Your task to perform on an android device: open app "Upside-Cash back on gas & food" (install if not already installed) and go to login screen Image 0: 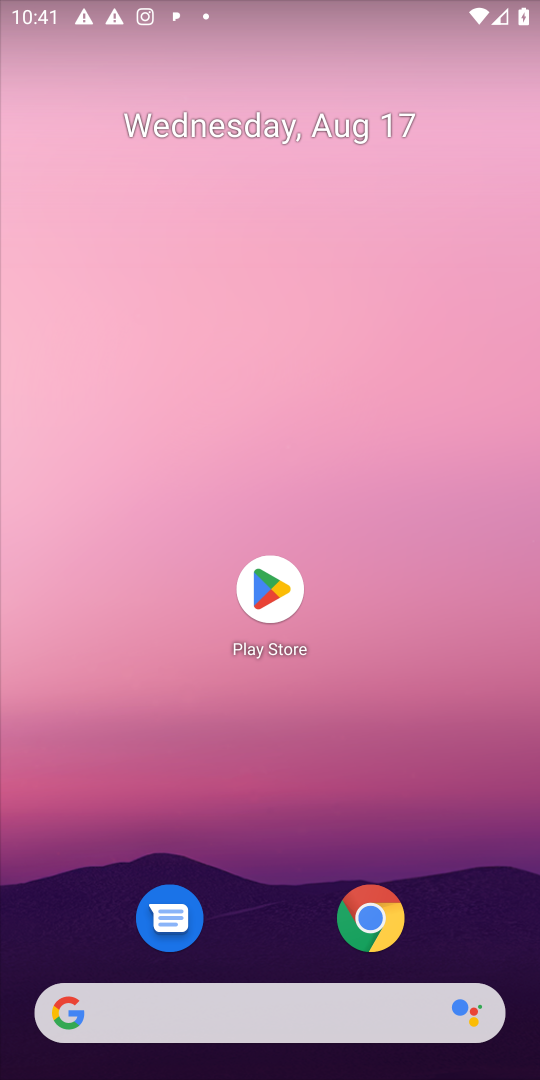
Step 0: press home button
Your task to perform on an android device: open app "Upside-Cash back on gas & food" (install if not already installed) and go to login screen Image 1: 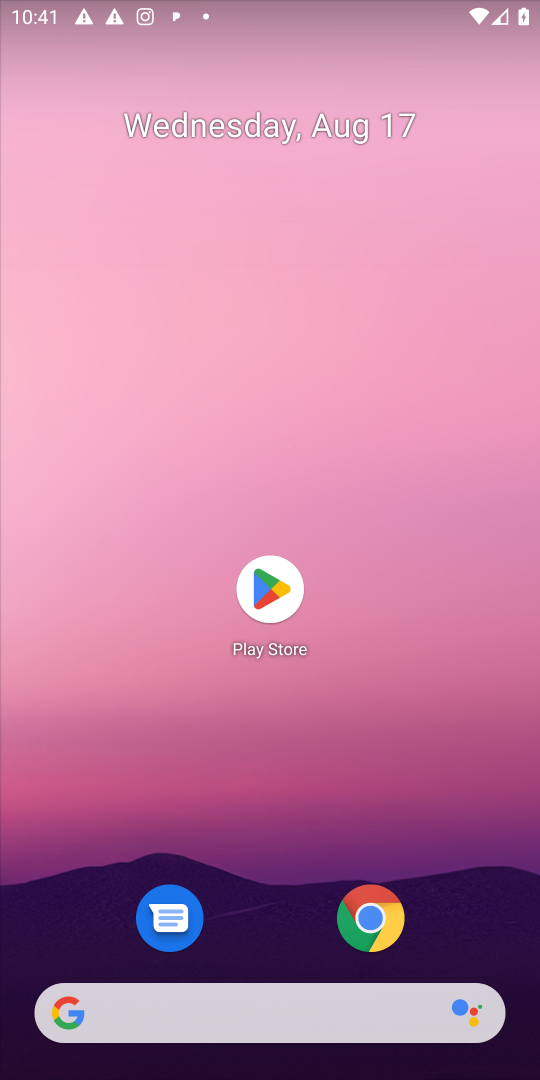
Step 1: click (265, 587)
Your task to perform on an android device: open app "Upside-Cash back on gas & food" (install if not already installed) and go to login screen Image 2: 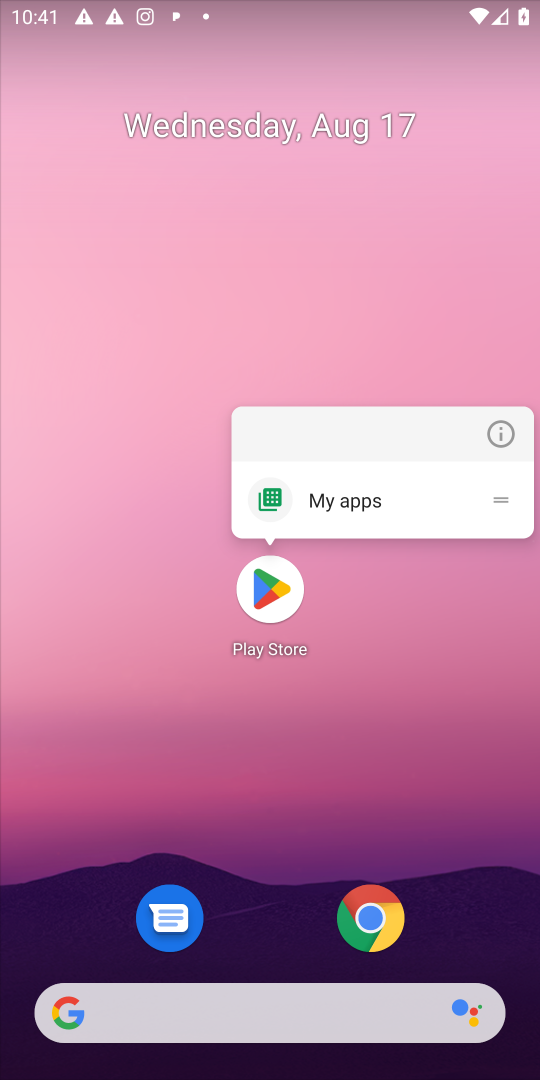
Step 2: click (264, 608)
Your task to perform on an android device: open app "Upside-Cash back on gas & food" (install if not already installed) and go to login screen Image 3: 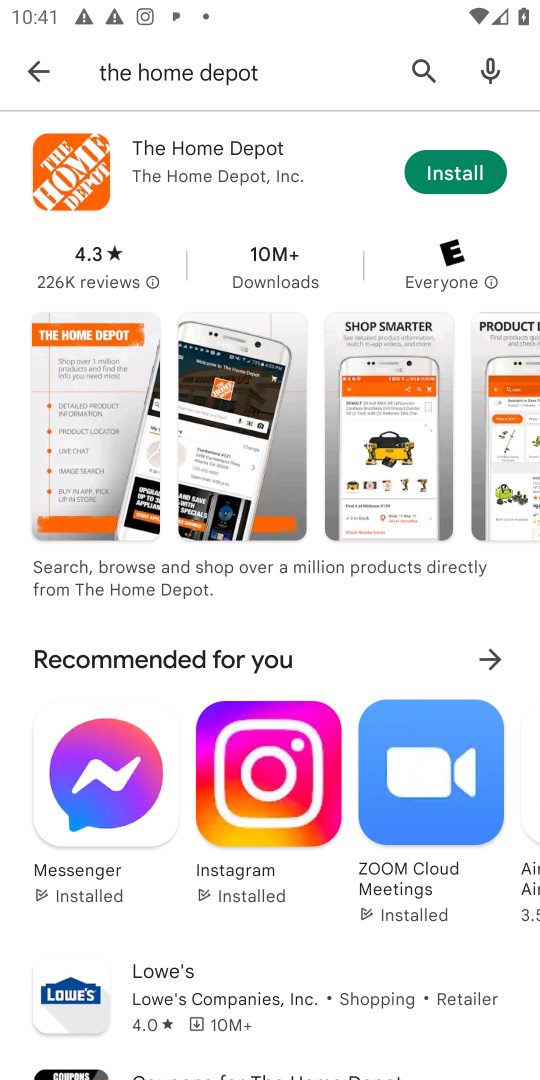
Step 3: click (424, 71)
Your task to perform on an android device: open app "Upside-Cash back on gas & food" (install if not already installed) and go to login screen Image 4: 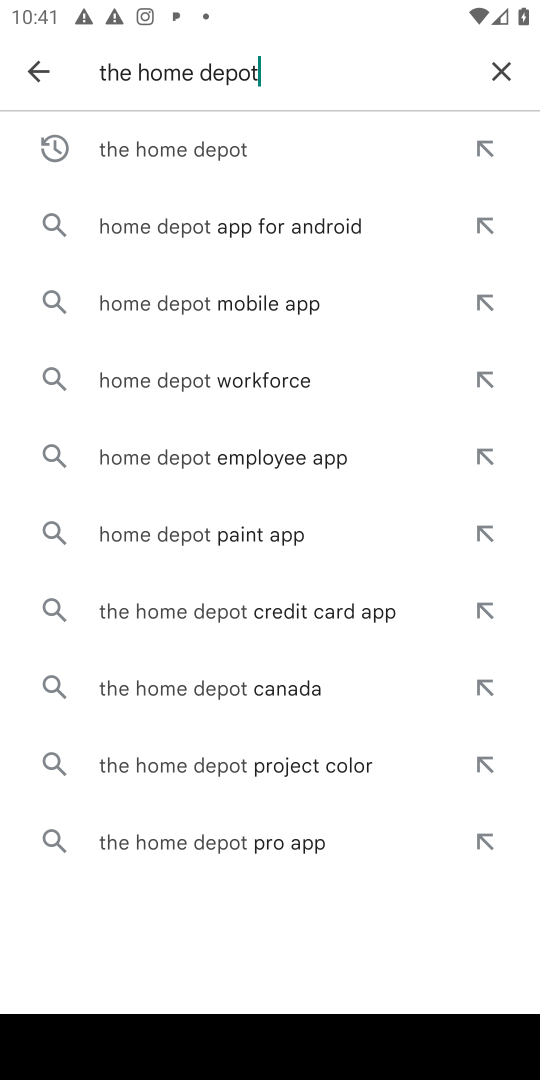
Step 4: click (496, 69)
Your task to perform on an android device: open app "Upside-Cash back on gas & food" (install if not already installed) and go to login screen Image 5: 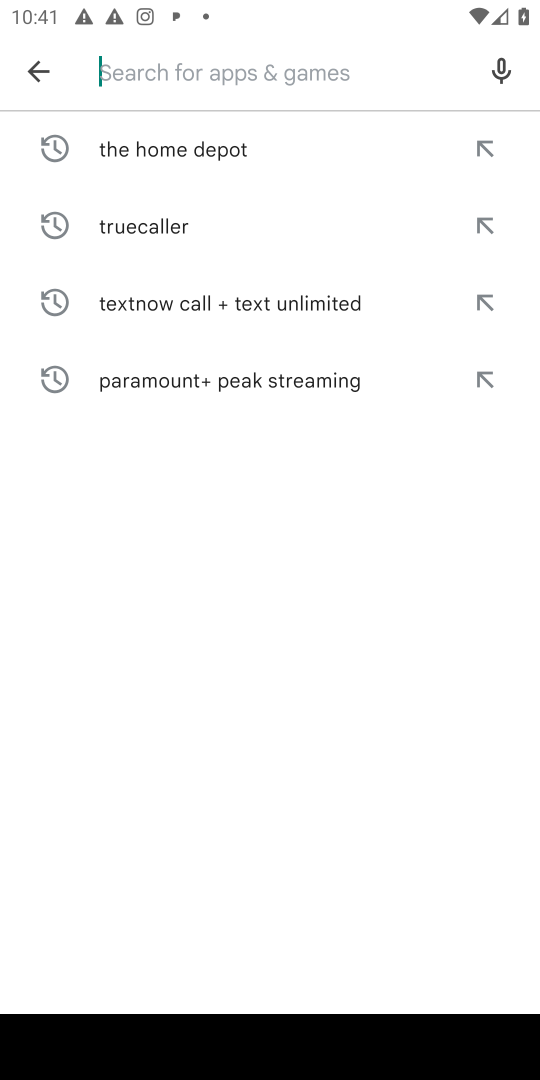
Step 5: type "Upside-Cash back on gas & food"
Your task to perform on an android device: open app "Upside-Cash back on gas & food" (install if not already installed) and go to login screen Image 6: 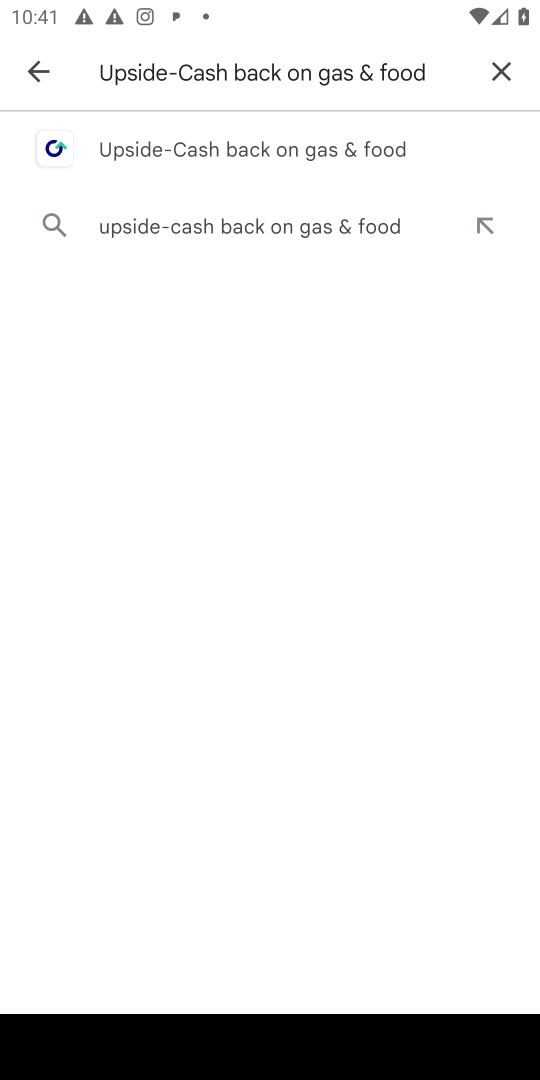
Step 6: click (254, 146)
Your task to perform on an android device: open app "Upside-Cash back on gas & food" (install if not already installed) and go to login screen Image 7: 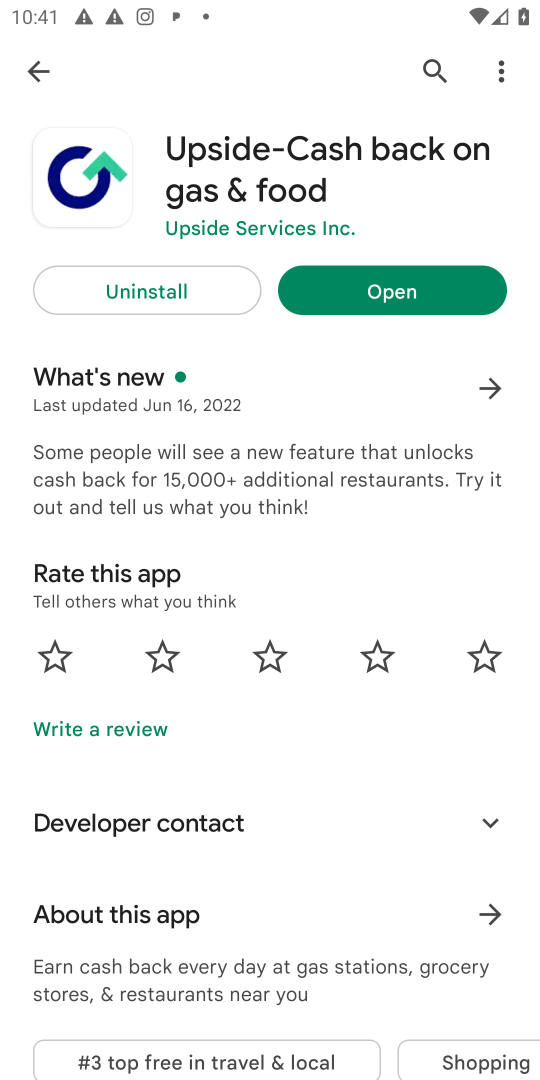
Step 7: click (385, 293)
Your task to perform on an android device: open app "Upside-Cash back on gas & food" (install if not already installed) and go to login screen Image 8: 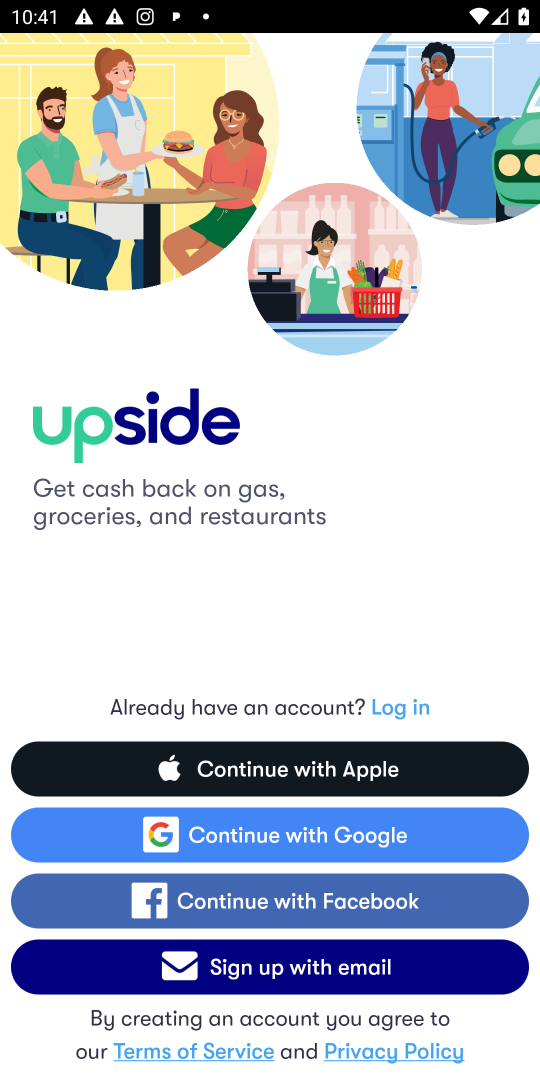
Step 8: click (297, 979)
Your task to perform on an android device: open app "Upside-Cash back on gas & food" (install if not already installed) and go to login screen Image 9: 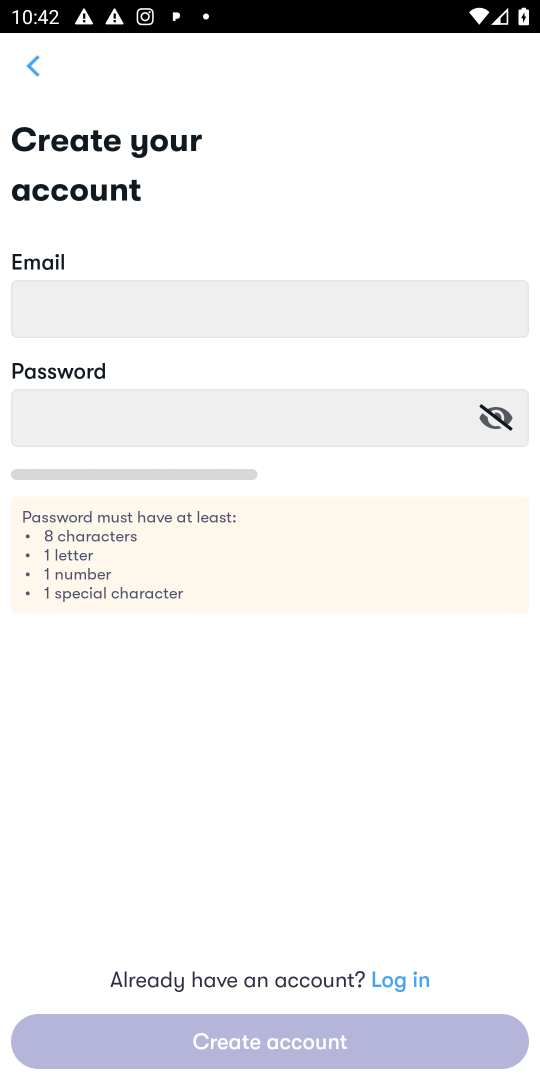
Step 9: task complete